Your task to perform on an android device: turn on notifications settings in the gmail app Image 0: 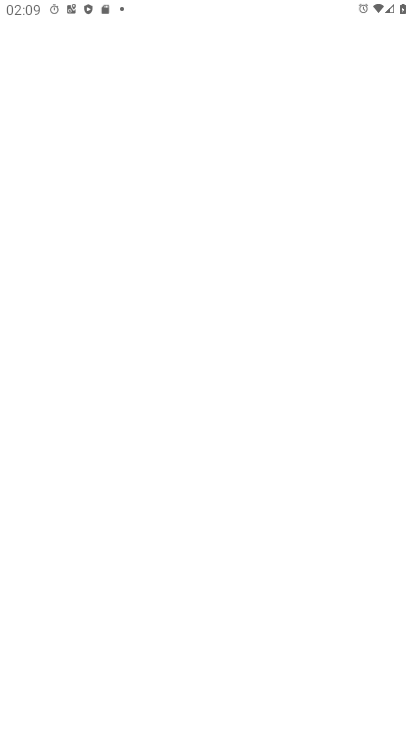
Step 0: press home button
Your task to perform on an android device: turn on notifications settings in the gmail app Image 1: 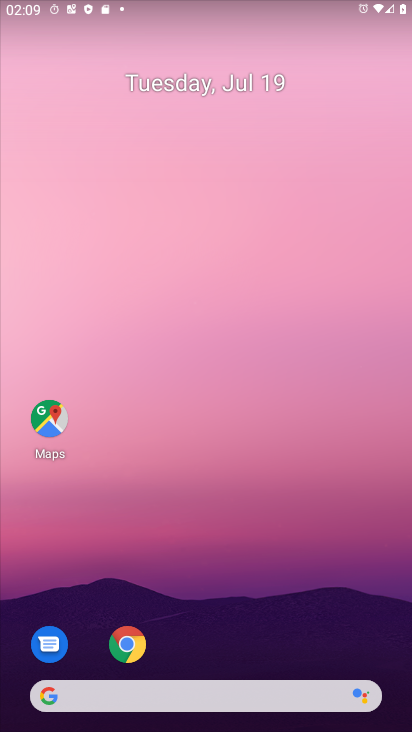
Step 1: drag from (200, 724) to (269, 129)
Your task to perform on an android device: turn on notifications settings in the gmail app Image 2: 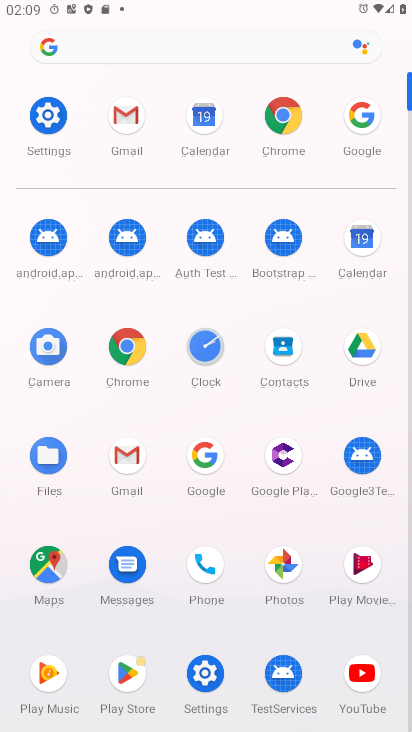
Step 2: click (131, 456)
Your task to perform on an android device: turn on notifications settings in the gmail app Image 3: 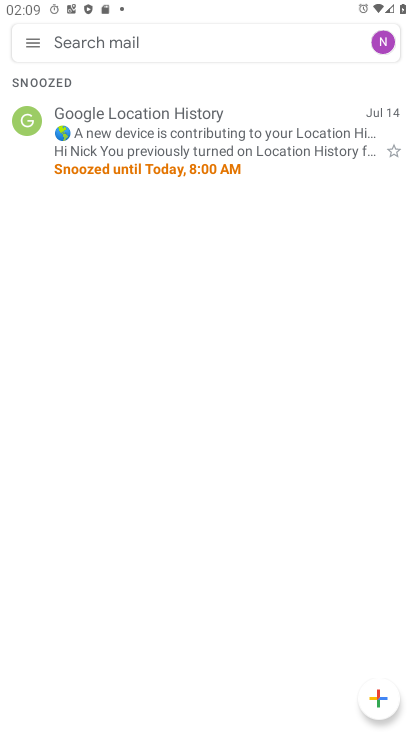
Step 3: click (28, 43)
Your task to perform on an android device: turn on notifications settings in the gmail app Image 4: 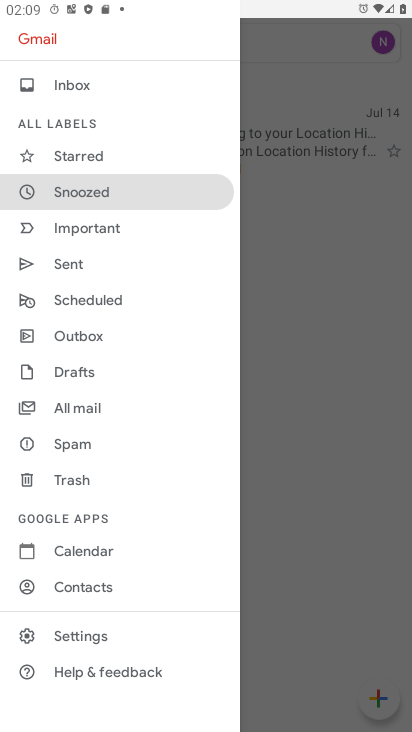
Step 4: click (102, 633)
Your task to perform on an android device: turn on notifications settings in the gmail app Image 5: 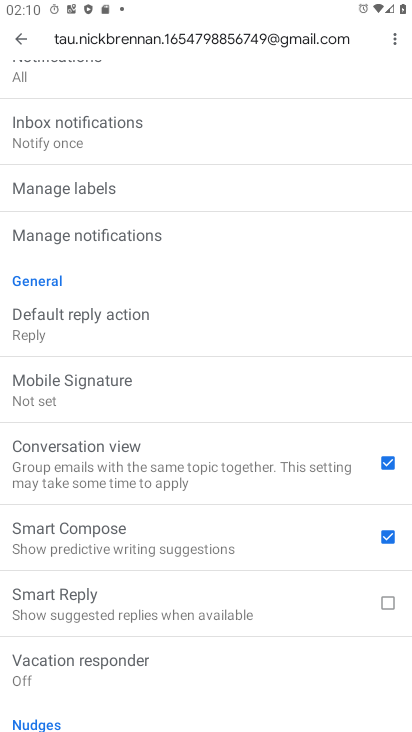
Step 5: task complete